Your task to perform on an android device: Clear all items from cart on bestbuy. Image 0: 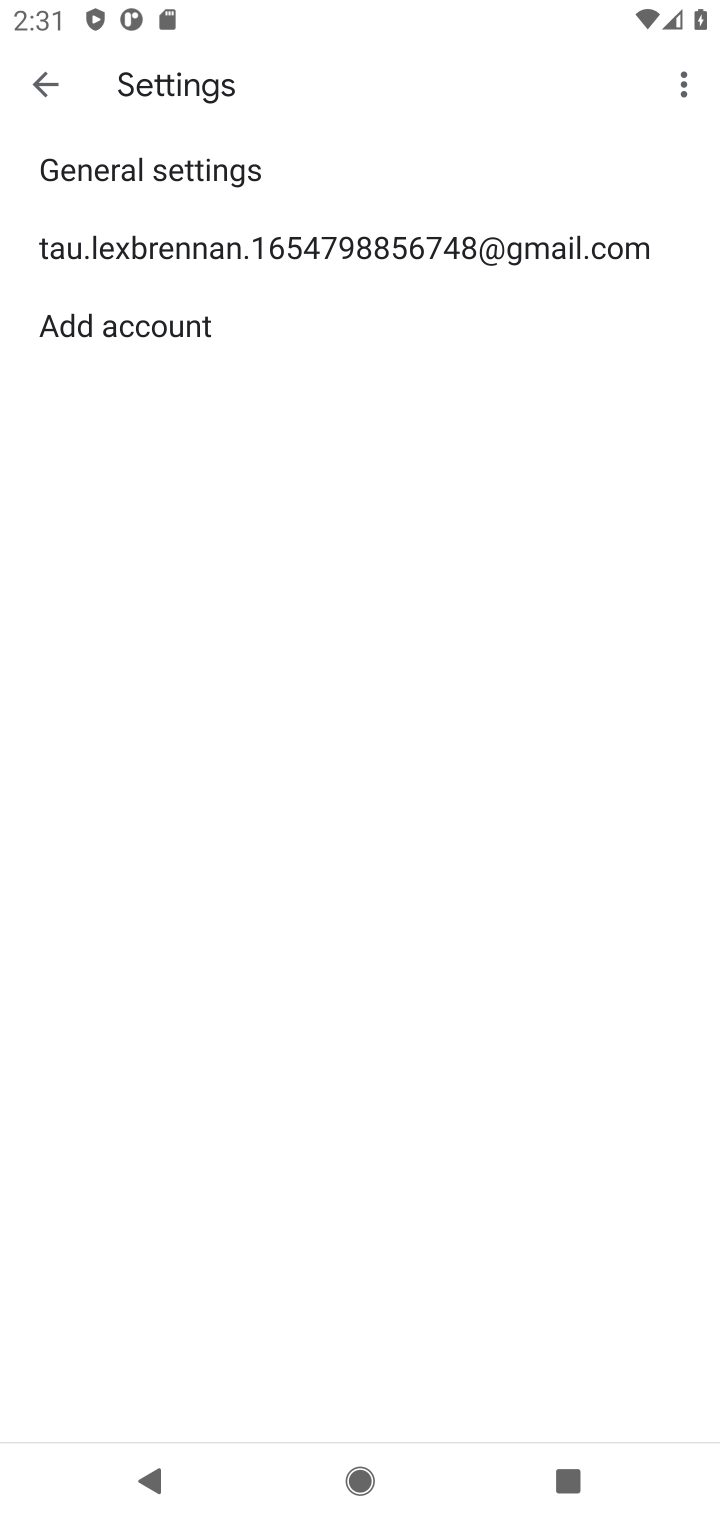
Step 0: press home button
Your task to perform on an android device: Clear all items from cart on bestbuy. Image 1: 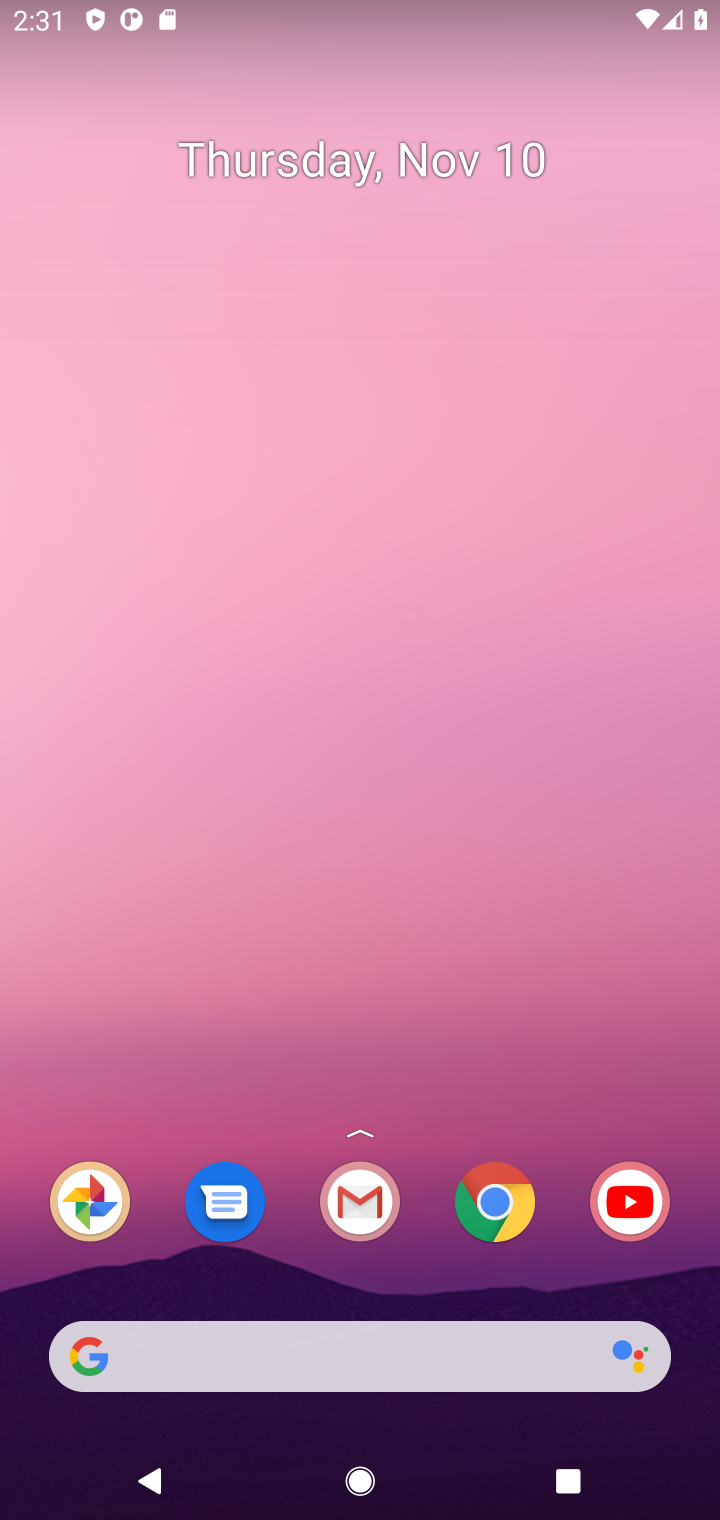
Step 1: click (475, 1200)
Your task to perform on an android device: Clear all items from cart on bestbuy. Image 2: 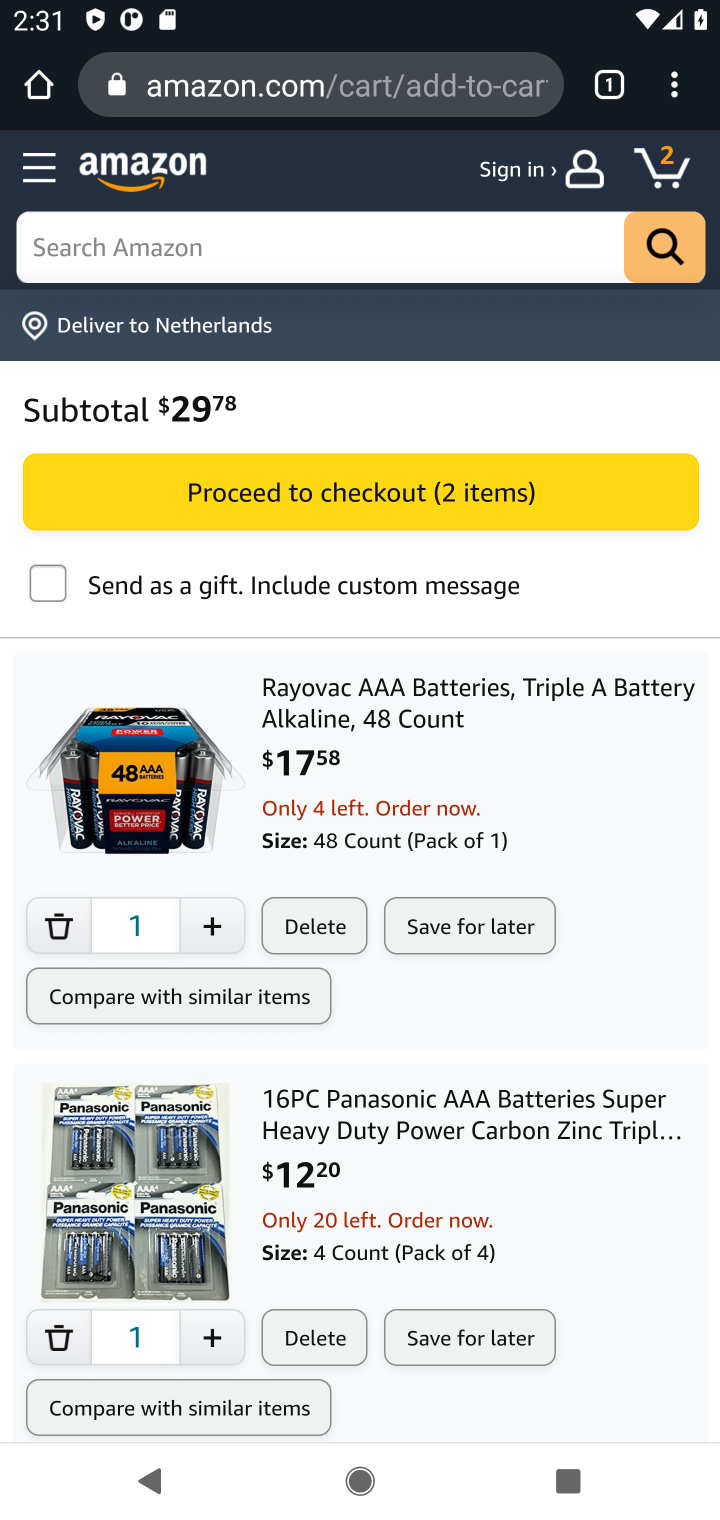
Step 2: click (417, 76)
Your task to perform on an android device: Clear all items from cart on bestbuy. Image 3: 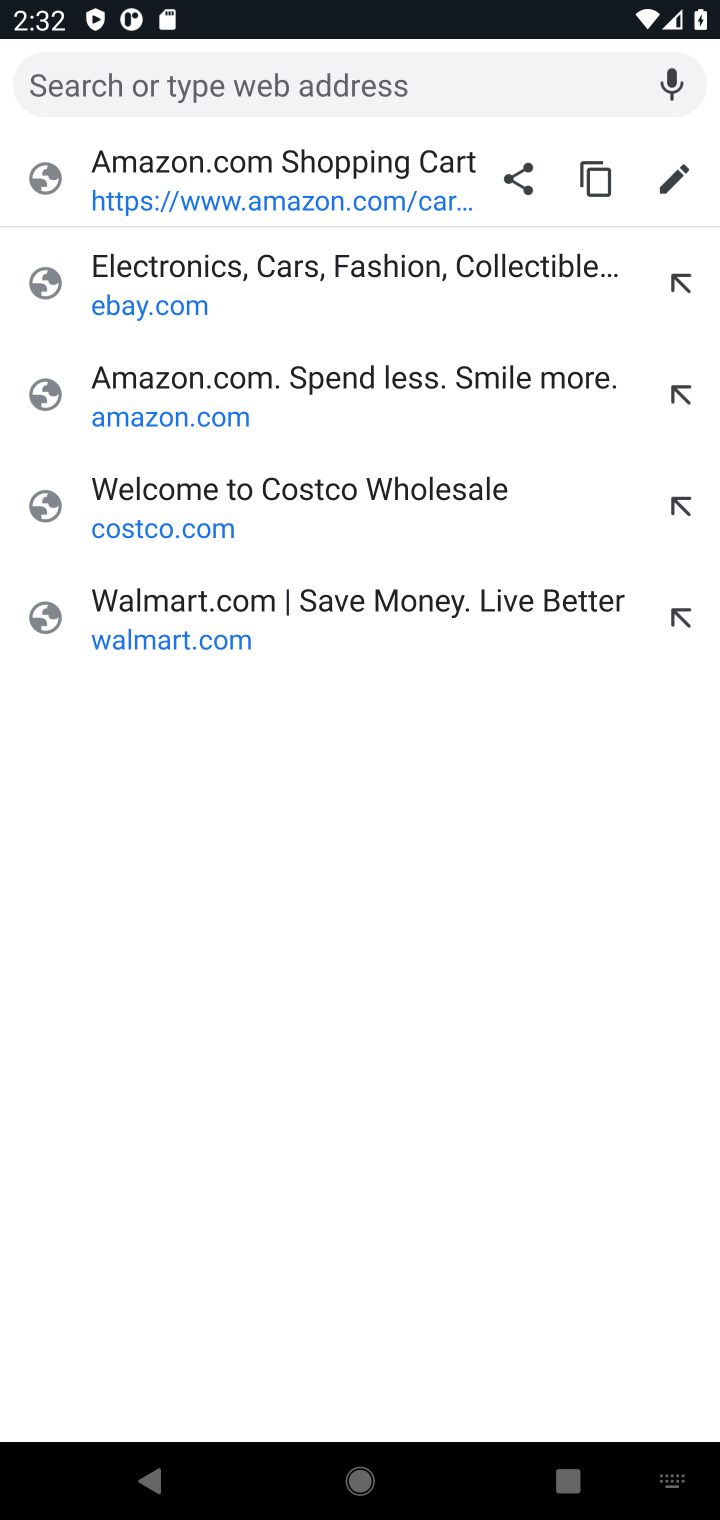
Step 3: type "bestbuy"
Your task to perform on an android device: Clear all items from cart on bestbuy. Image 4: 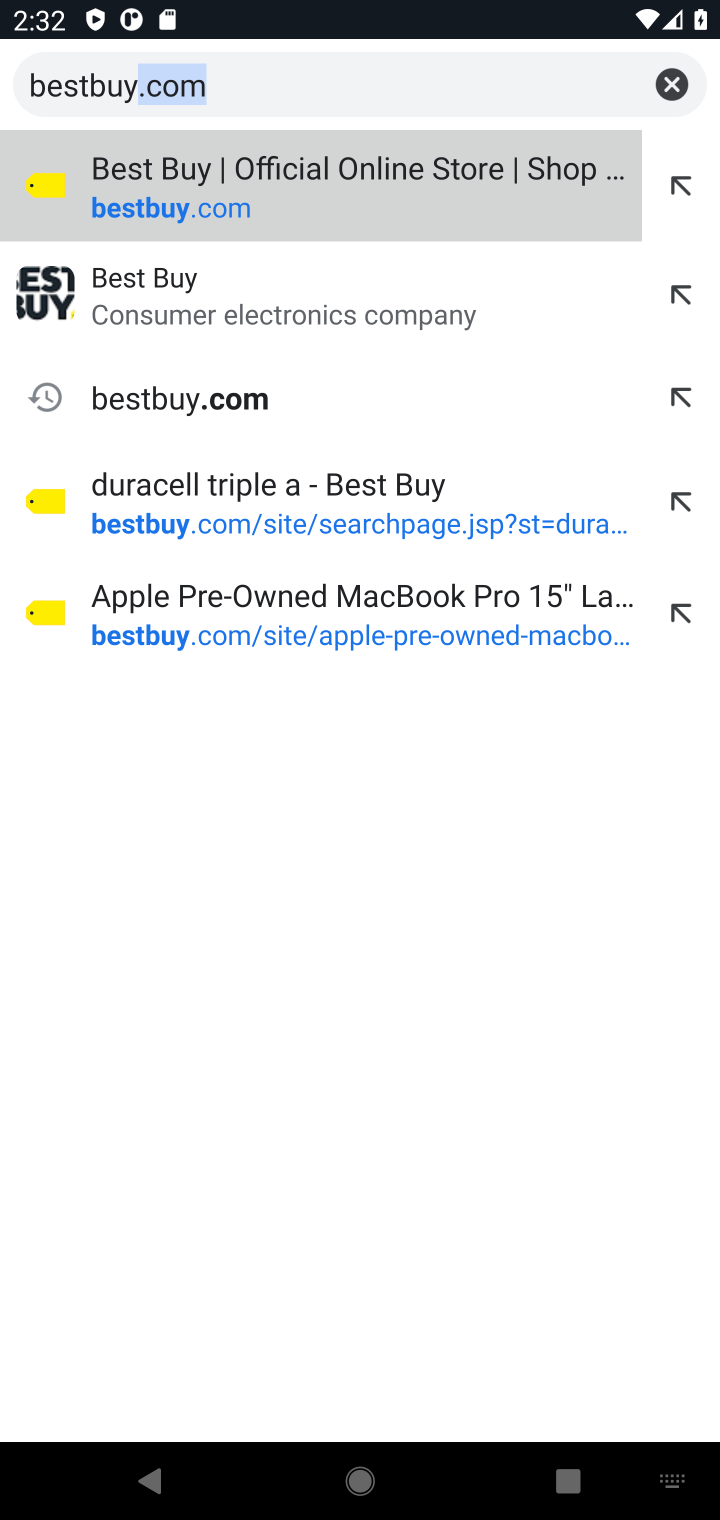
Step 4: press enter
Your task to perform on an android device: Clear all items from cart on bestbuy. Image 5: 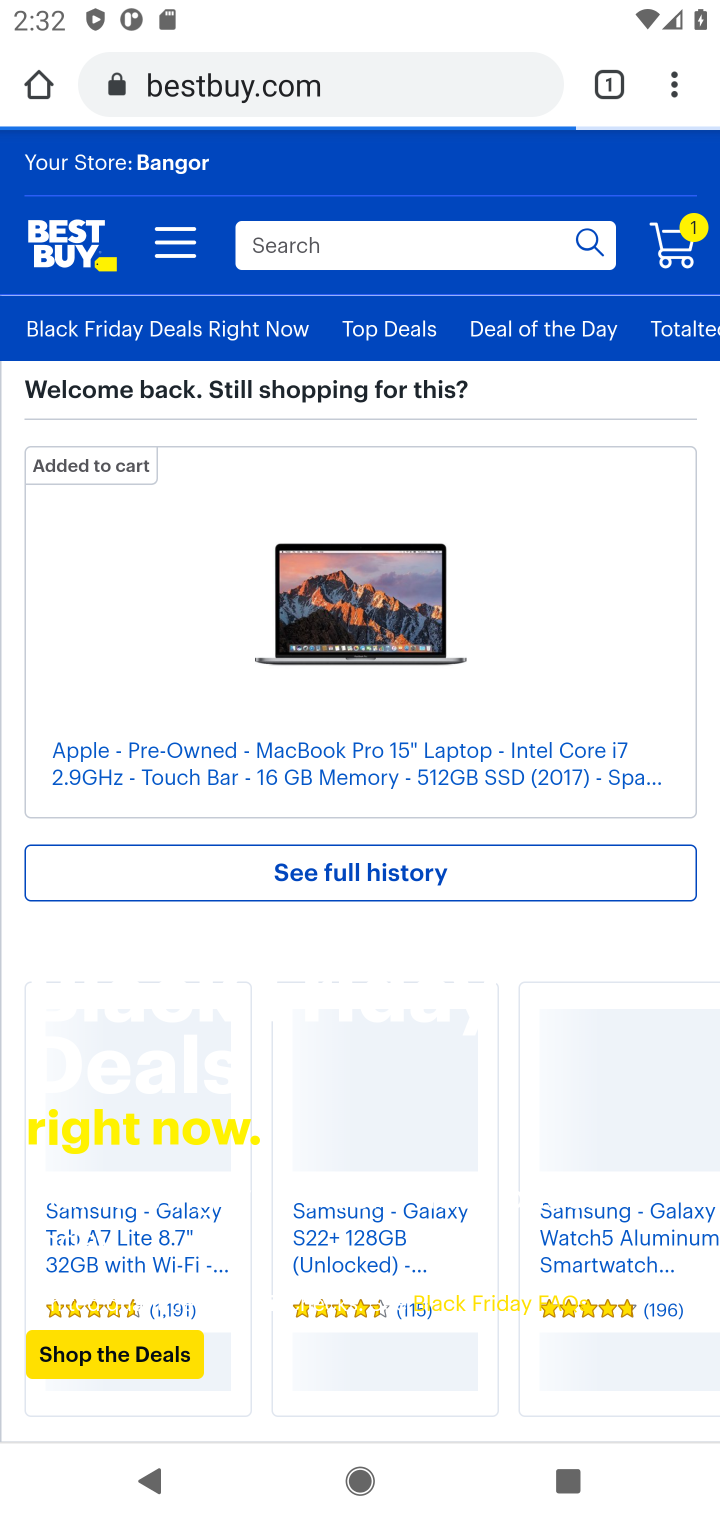
Step 5: click (667, 241)
Your task to perform on an android device: Clear all items from cart on bestbuy. Image 6: 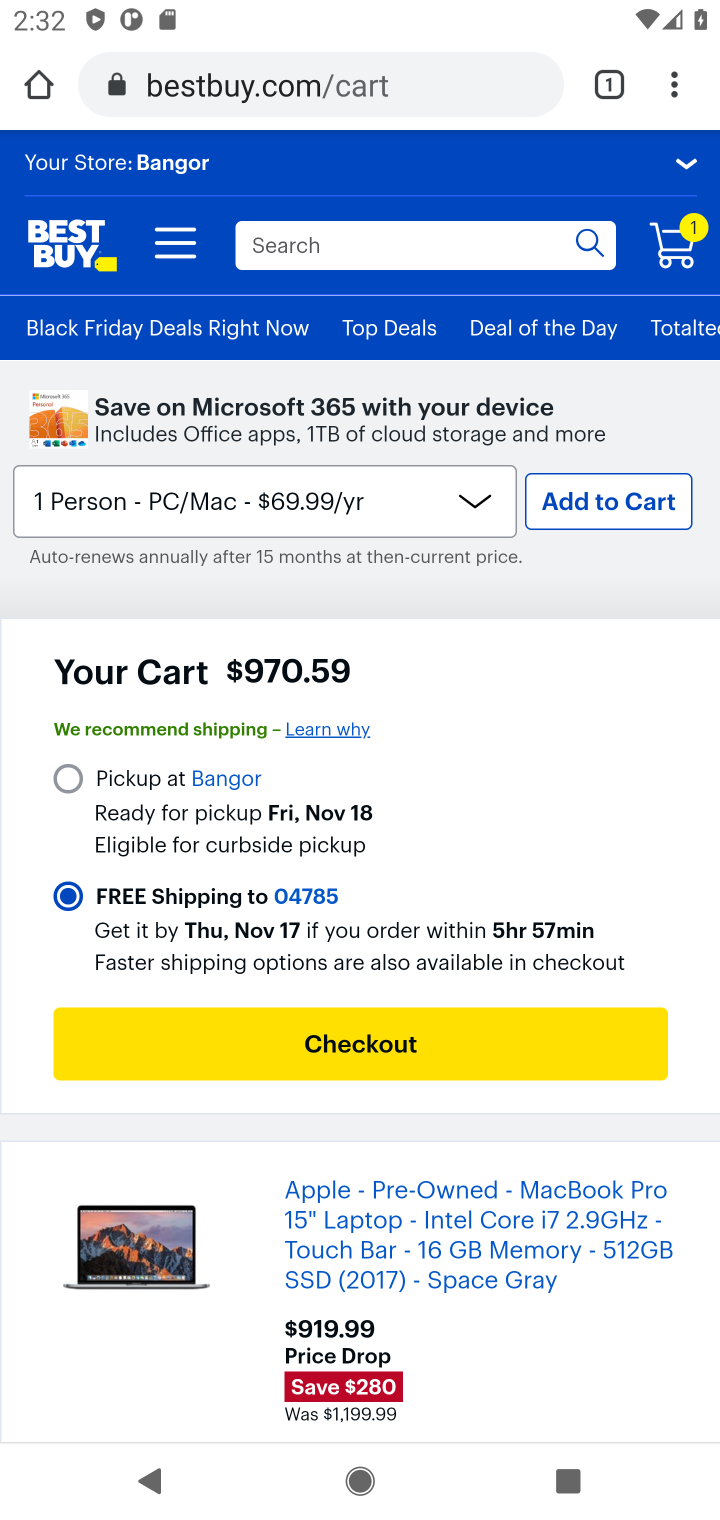
Step 6: drag from (556, 834) to (624, 435)
Your task to perform on an android device: Clear all items from cart on bestbuy. Image 7: 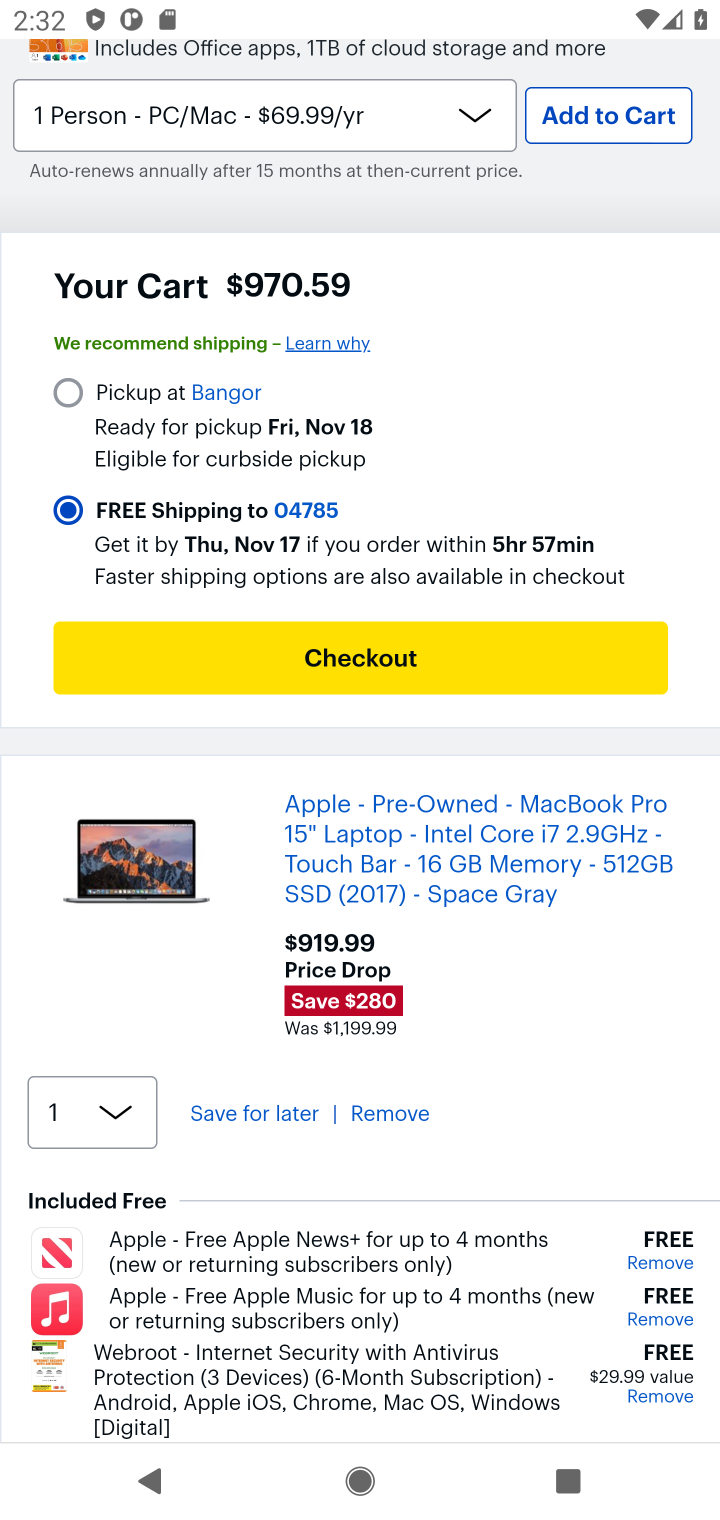
Step 7: click (405, 1102)
Your task to perform on an android device: Clear all items from cart on bestbuy. Image 8: 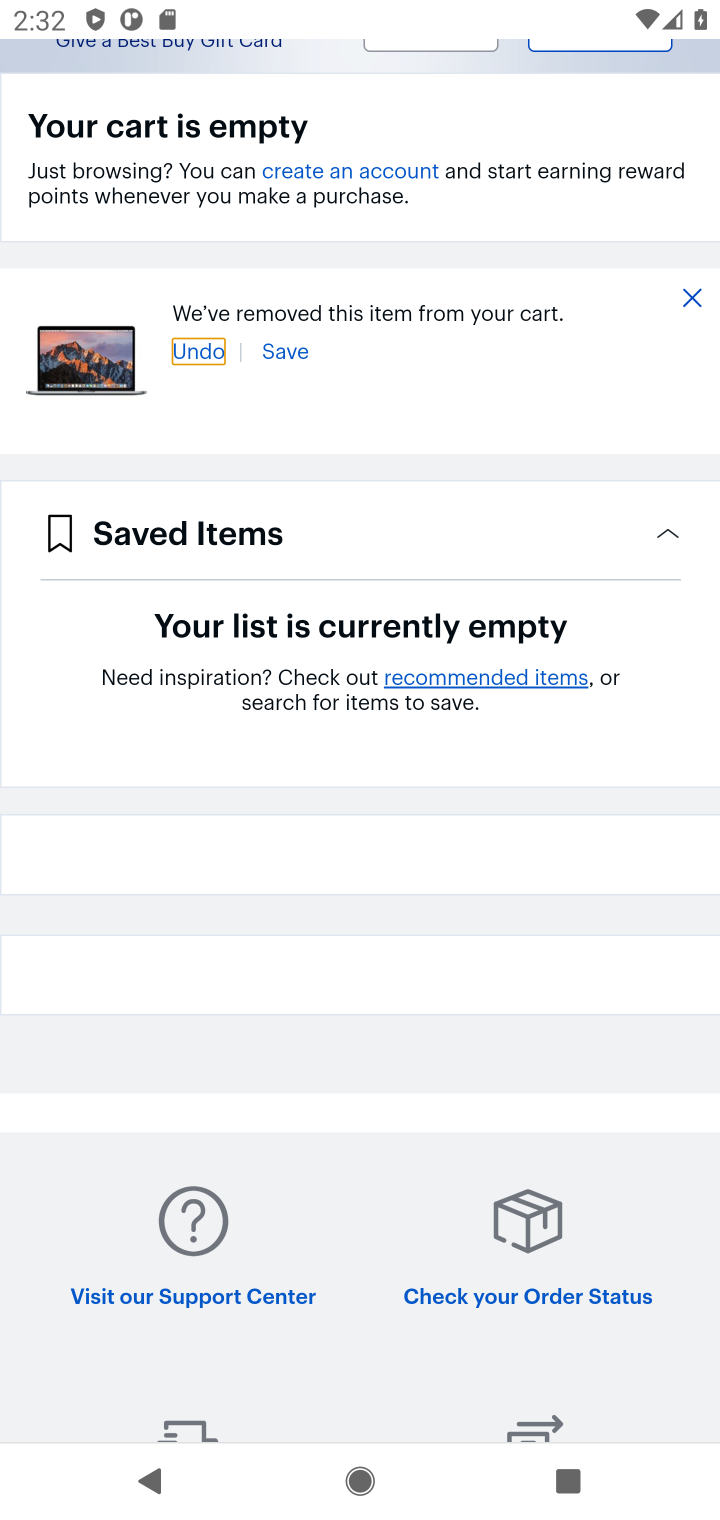
Step 8: task complete